Your task to perform on an android device: toggle sleep mode Image 0: 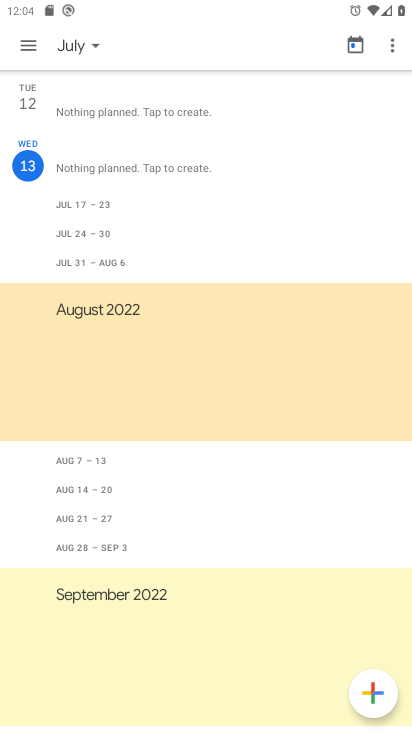
Step 0: press home button
Your task to perform on an android device: toggle sleep mode Image 1: 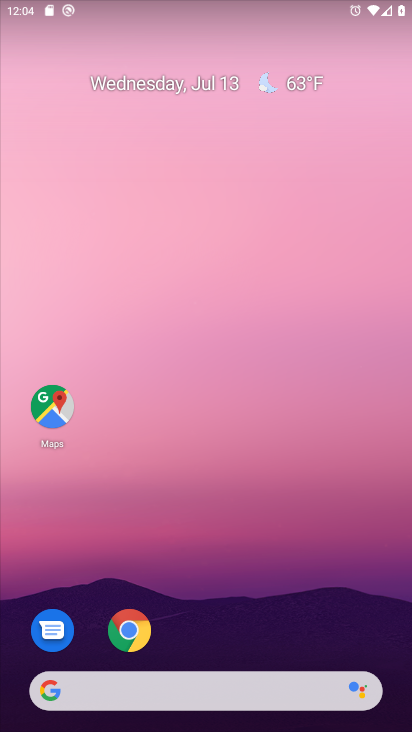
Step 1: drag from (222, 693) to (193, 177)
Your task to perform on an android device: toggle sleep mode Image 2: 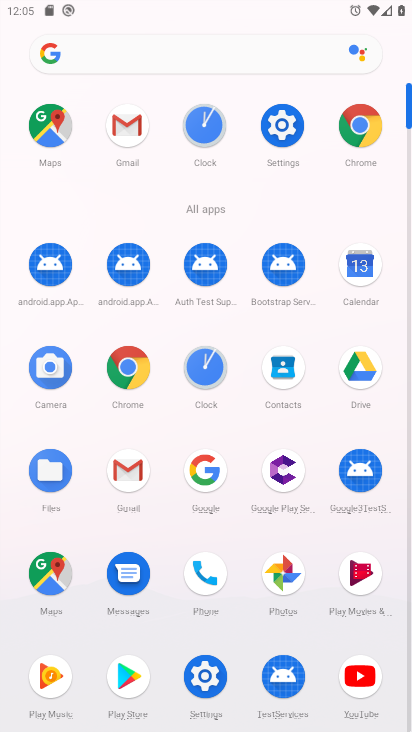
Step 2: click (297, 118)
Your task to perform on an android device: toggle sleep mode Image 3: 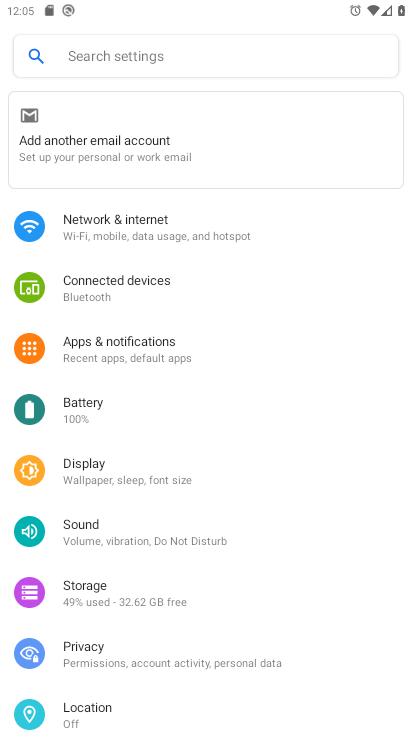
Step 3: click (108, 478)
Your task to perform on an android device: toggle sleep mode Image 4: 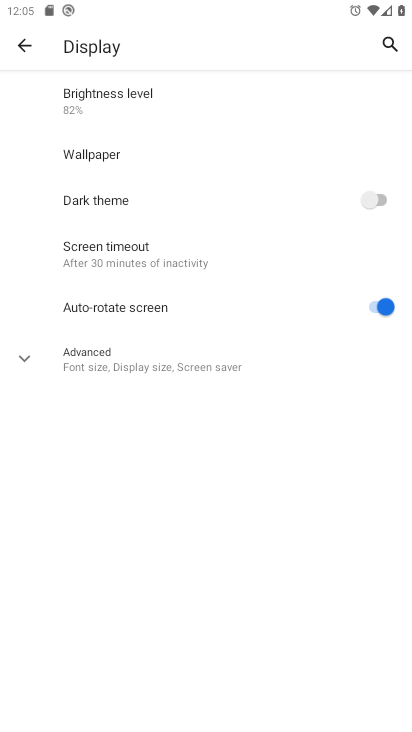
Step 4: click (114, 361)
Your task to perform on an android device: toggle sleep mode Image 5: 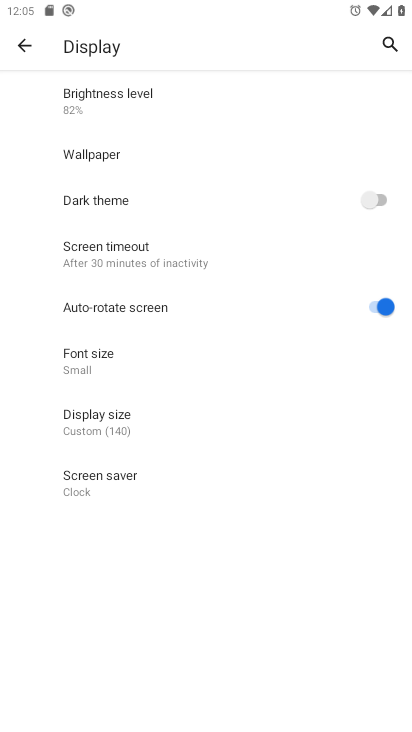
Step 5: task complete